Your task to perform on an android device: turn on the 24-hour format for clock Image 0: 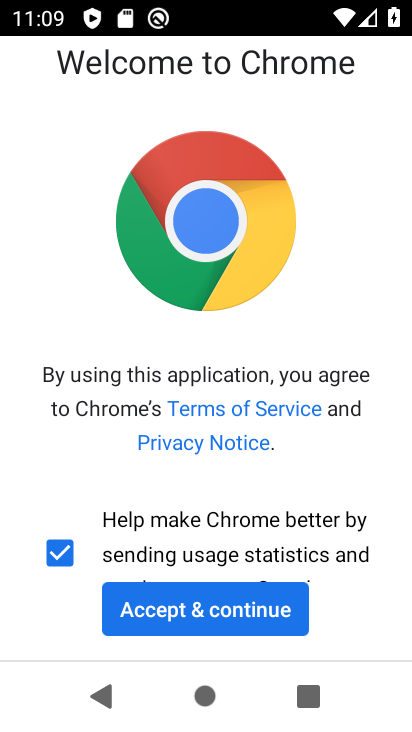
Step 0: press back button
Your task to perform on an android device: turn on the 24-hour format for clock Image 1: 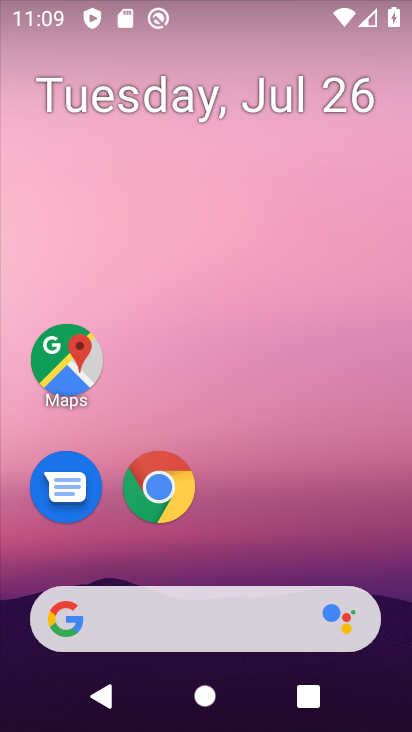
Step 1: drag from (219, 529) to (270, 23)
Your task to perform on an android device: turn on the 24-hour format for clock Image 2: 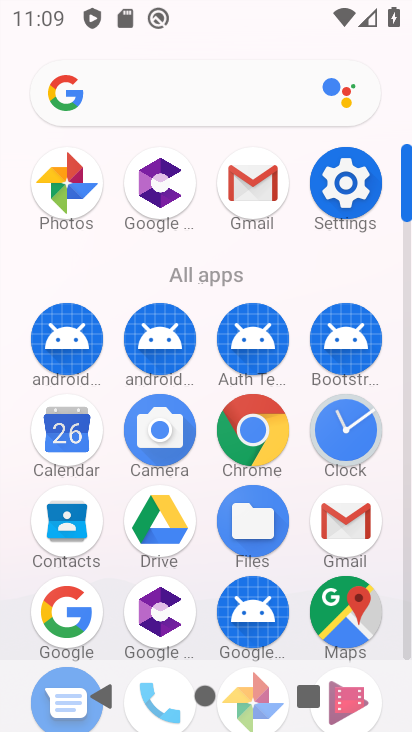
Step 2: click (356, 440)
Your task to perform on an android device: turn on the 24-hour format for clock Image 3: 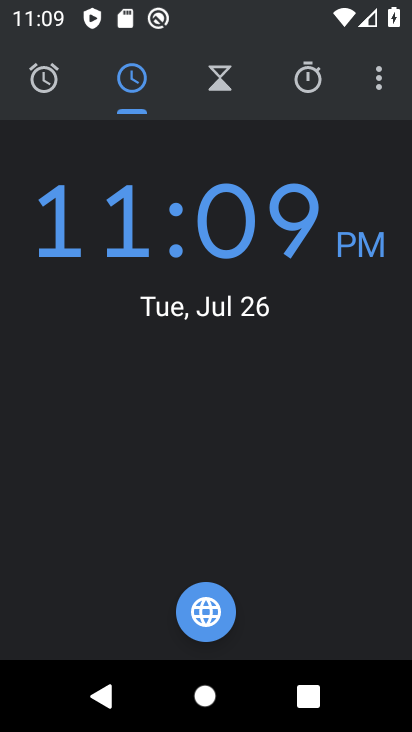
Step 3: click (381, 82)
Your task to perform on an android device: turn on the 24-hour format for clock Image 4: 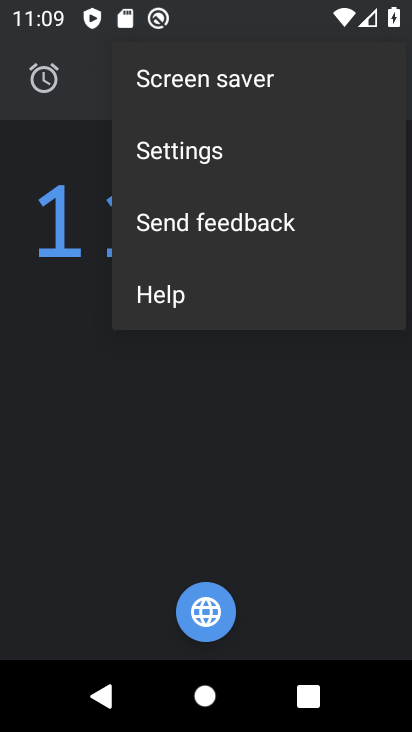
Step 4: click (230, 145)
Your task to perform on an android device: turn on the 24-hour format for clock Image 5: 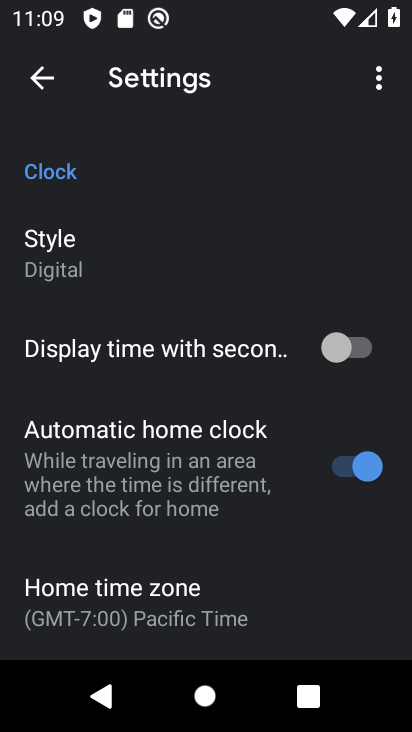
Step 5: drag from (130, 620) to (212, 151)
Your task to perform on an android device: turn on the 24-hour format for clock Image 6: 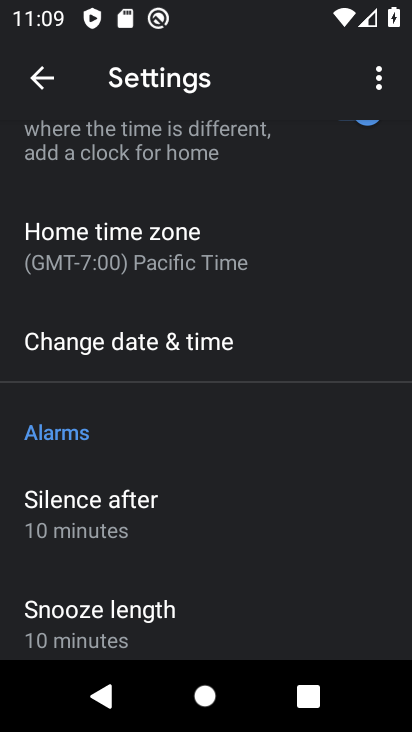
Step 6: click (108, 342)
Your task to perform on an android device: turn on the 24-hour format for clock Image 7: 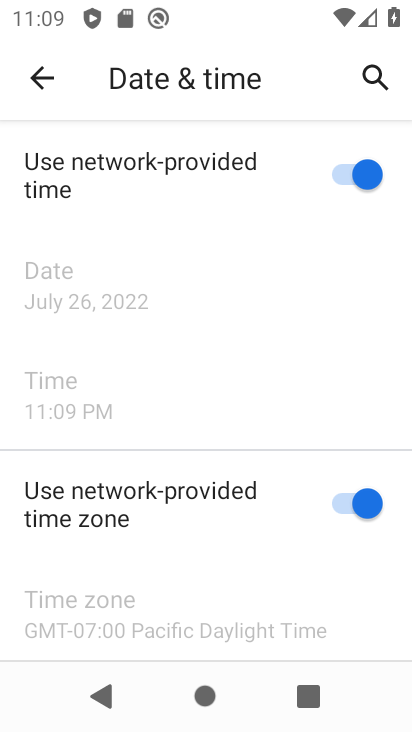
Step 7: drag from (171, 590) to (245, 237)
Your task to perform on an android device: turn on the 24-hour format for clock Image 8: 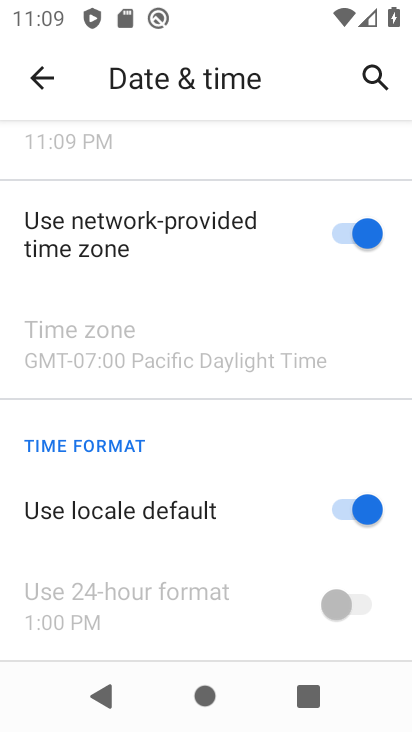
Step 8: click (343, 508)
Your task to perform on an android device: turn on the 24-hour format for clock Image 9: 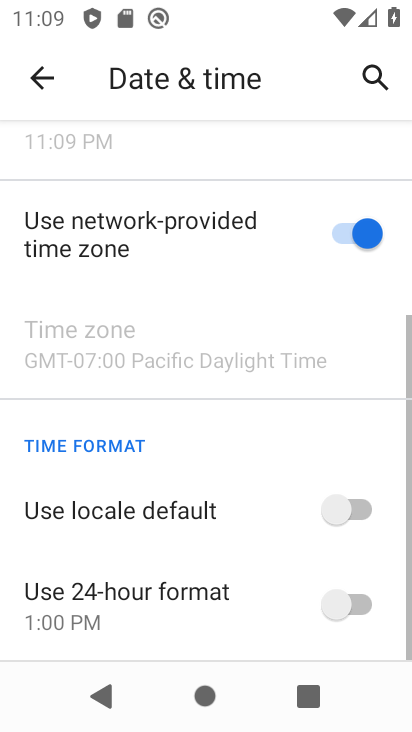
Step 9: click (342, 610)
Your task to perform on an android device: turn on the 24-hour format for clock Image 10: 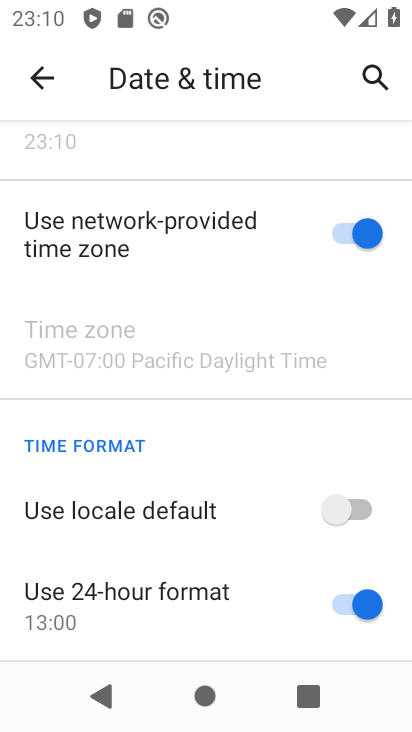
Step 10: task complete